Your task to perform on an android device: What is the news today? Image 0: 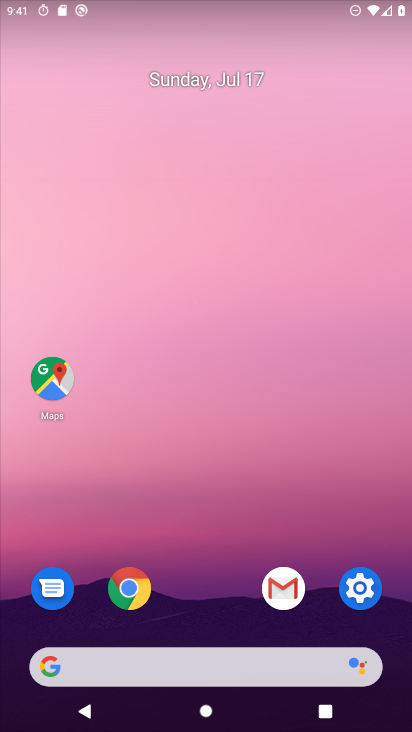
Step 0: click (180, 660)
Your task to perform on an android device: What is the news today? Image 1: 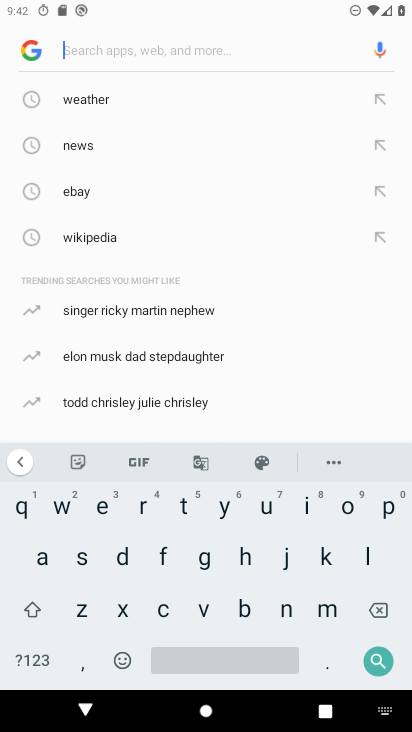
Step 1: click (121, 145)
Your task to perform on an android device: What is the news today? Image 2: 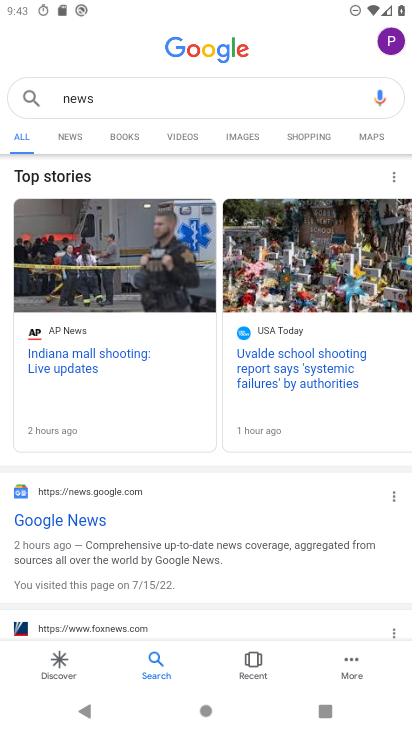
Step 2: task complete